Your task to perform on an android device: turn off improve location accuracy Image 0: 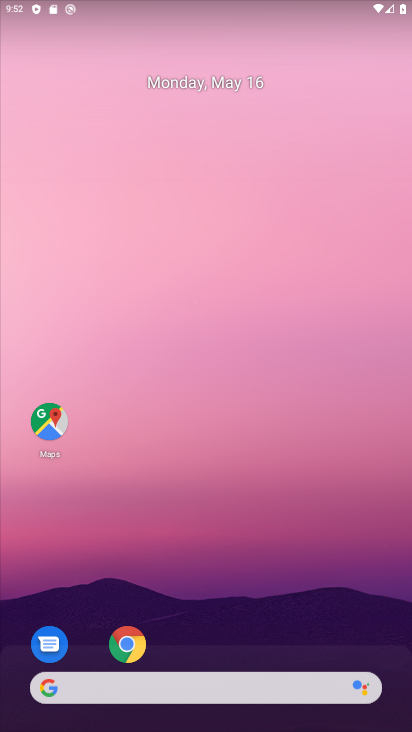
Step 0: drag from (191, 678) to (253, 176)
Your task to perform on an android device: turn off improve location accuracy Image 1: 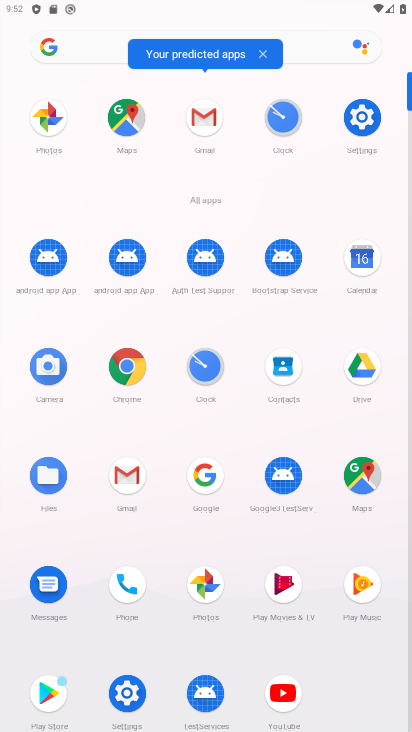
Step 1: click (352, 112)
Your task to perform on an android device: turn off improve location accuracy Image 2: 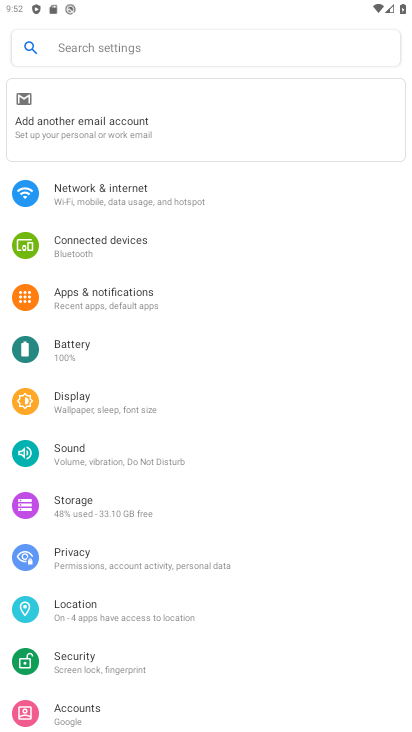
Step 2: click (85, 616)
Your task to perform on an android device: turn off improve location accuracy Image 3: 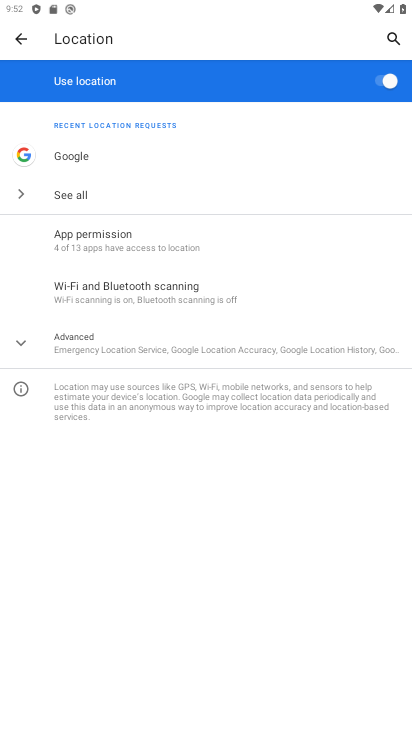
Step 3: click (124, 343)
Your task to perform on an android device: turn off improve location accuracy Image 4: 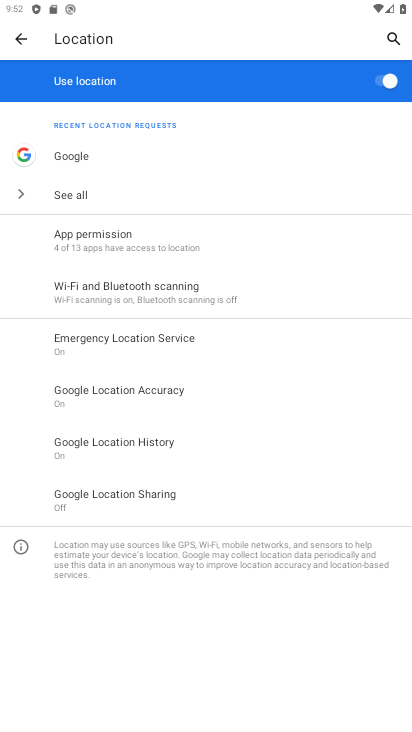
Step 4: click (100, 391)
Your task to perform on an android device: turn off improve location accuracy Image 5: 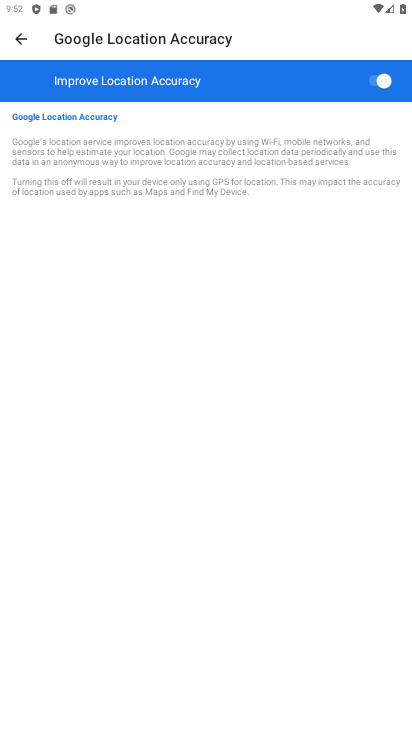
Step 5: click (376, 79)
Your task to perform on an android device: turn off improve location accuracy Image 6: 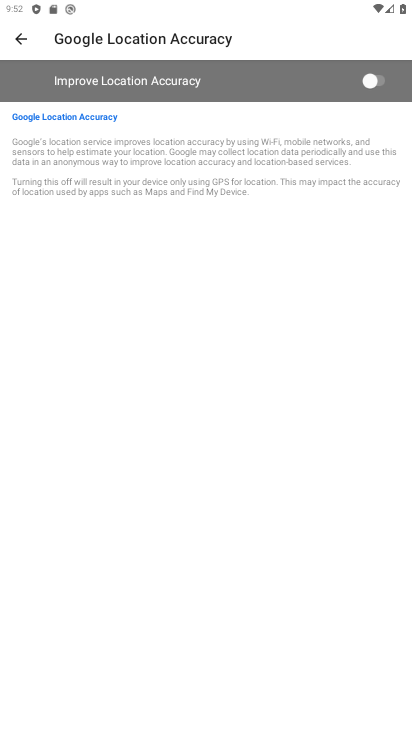
Step 6: task complete